Your task to perform on an android device: clear all cookies in the chrome app Image 0: 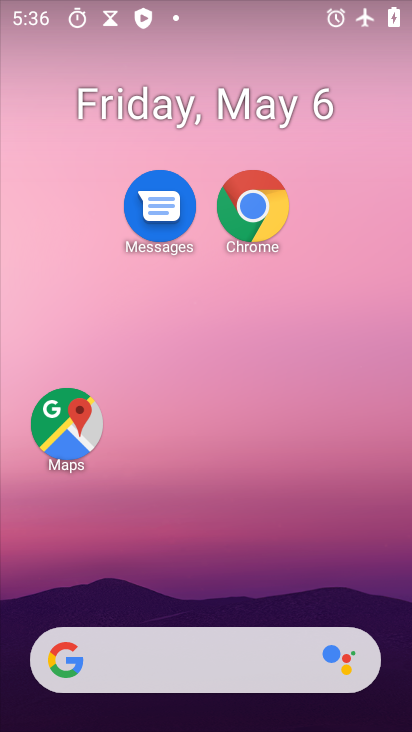
Step 0: drag from (149, 627) to (162, 269)
Your task to perform on an android device: clear all cookies in the chrome app Image 1: 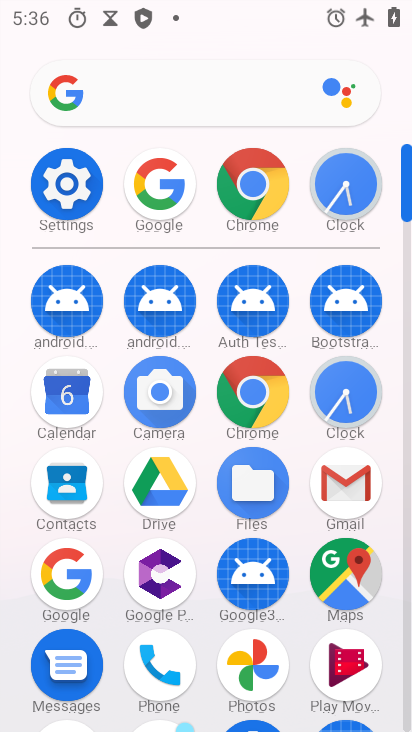
Step 1: click (252, 188)
Your task to perform on an android device: clear all cookies in the chrome app Image 2: 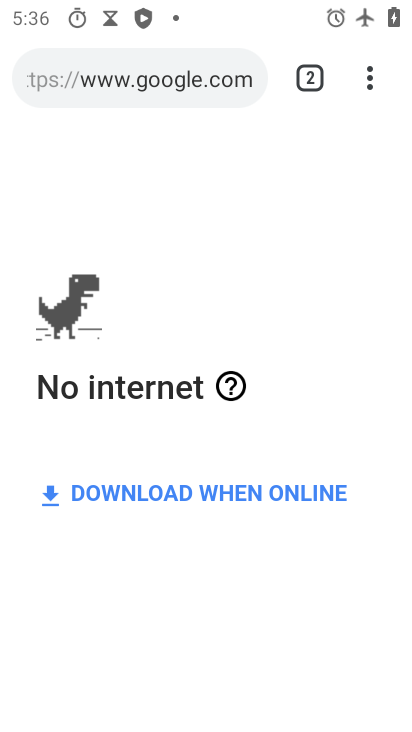
Step 2: click (378, 75)
Your task to perform on an android device: clear all cookies in the chrome app Image 3: 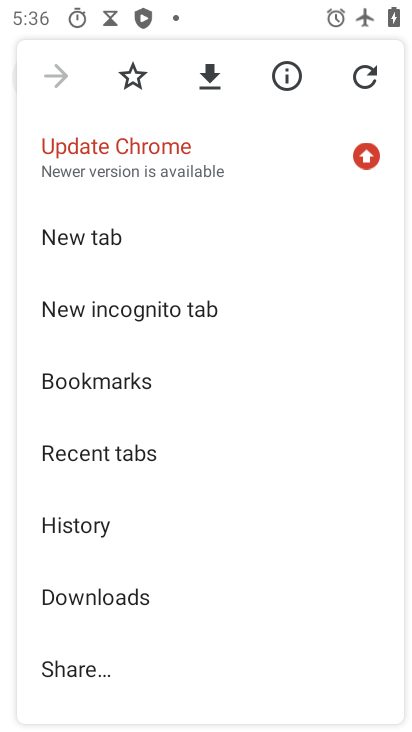
Step 3: drag from (142, 606) to (129, 231)
Your task to perform on an android device: clear all cookies in the chrome app Image 4: 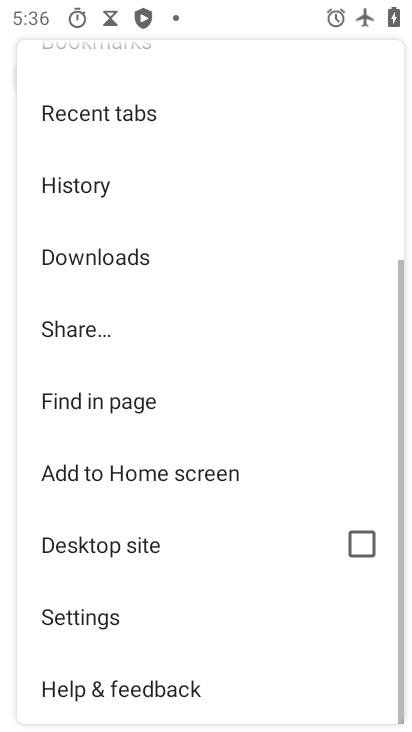
Step 4: click (100, 623)
Your task to perform on an android device: clear all cookies in the chrome app Image 5: 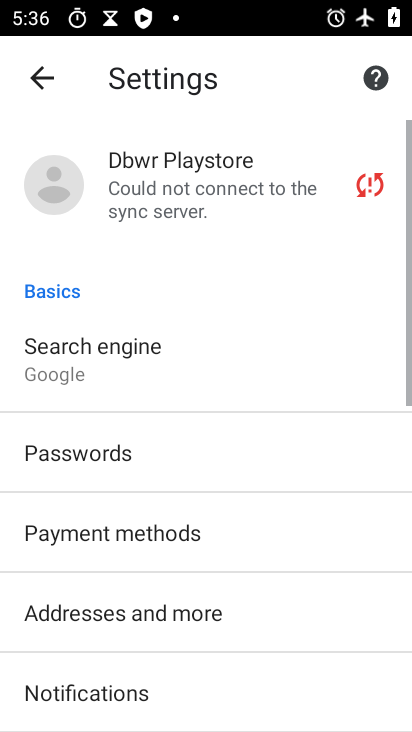
Step 5: drag from (117, 677) to (163, 343)
Your task to perform on an android device: clear all cookies in the chrome app Image 6: 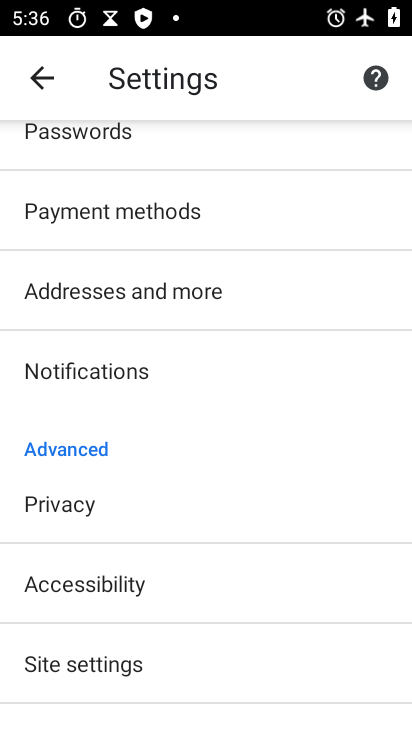
Step 6: click (74, 506)
Your task to perform on an android device: clear all cookies in the chrome app Image 7: 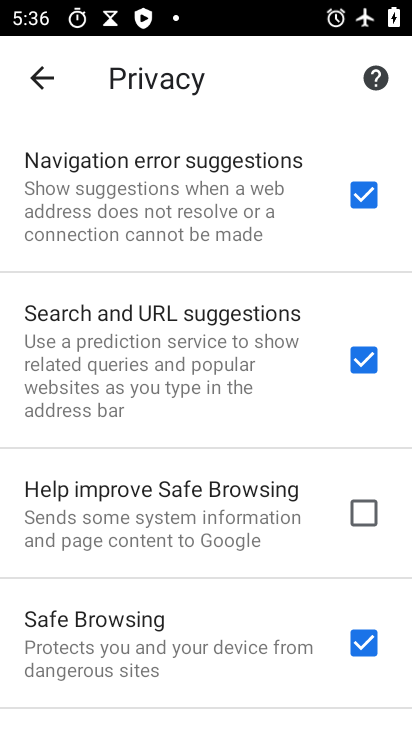
Step 7: drag from (145, 689) to (193, 340)
Your task to perform on an android device: clear all cookies in the chrome app Image 8: 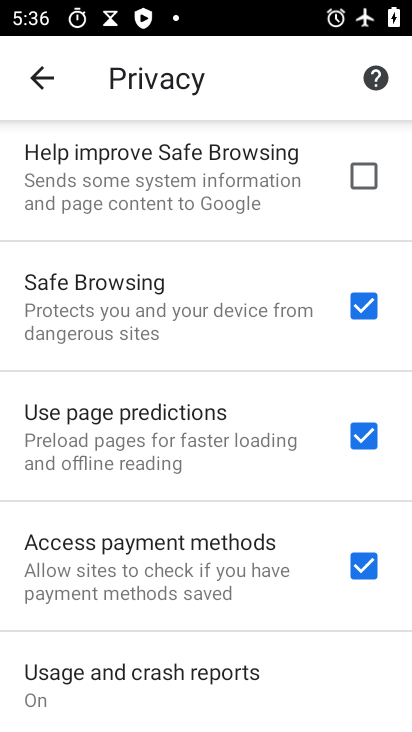
Step 8: drag from (138, 671) to (191, 286)
Your task to perform on an android device: clear all cookies in the chrome app Image 9: 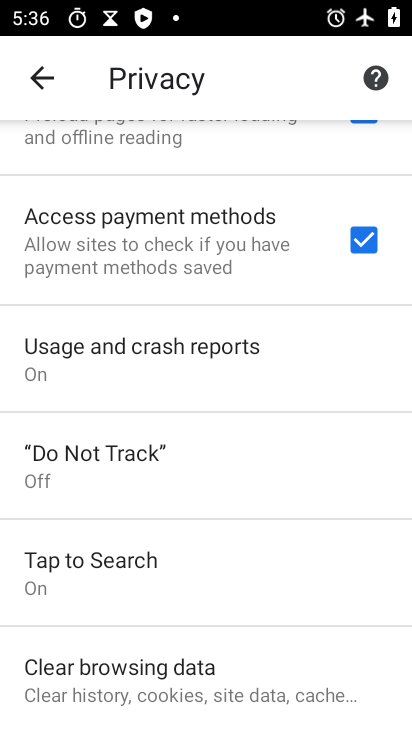
Step 9: click (121, 694)
Your task to perform on an android device: clear all cookies in the chrome app Image 10: 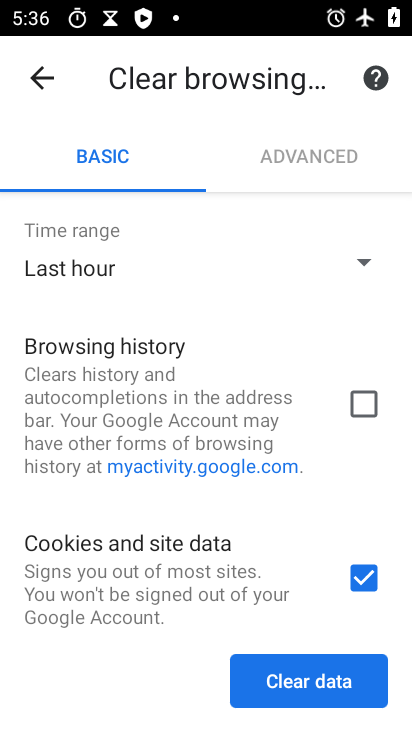
Step 10: drag from (213, 598) to (271, 248)
Your task to perform on an android device: clear all cookies in the chrome app Image 11: 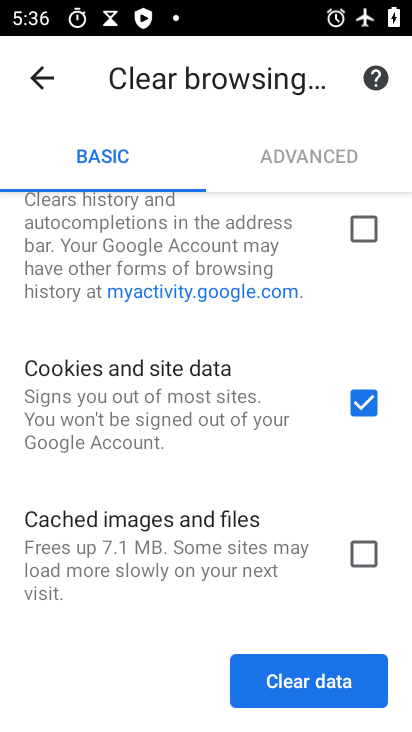
Step 11: click (313, 691)
Your task to perform on an android device: clear all cookies in the chrome app Image 12: 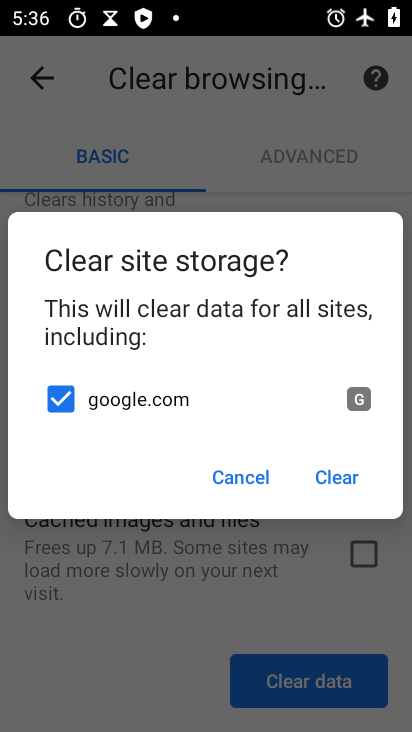
Step 12: click (329, 476)
Your task to perform on an android device: clear all cookies in the chrome app Image 13: 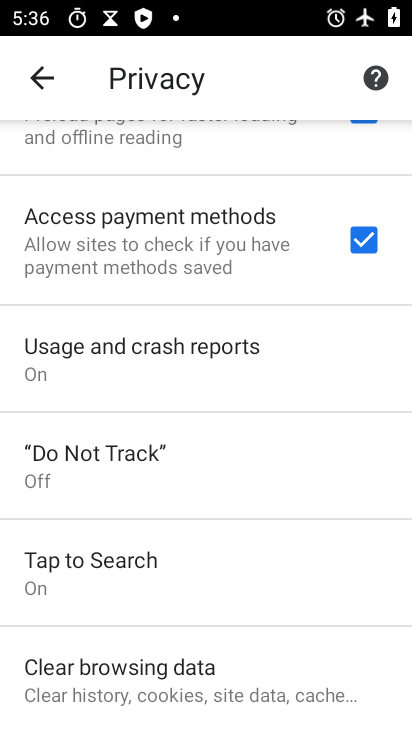
Step 13: task complete